Your task to perform on an android device: delete a single message in the gmail app Image 0: 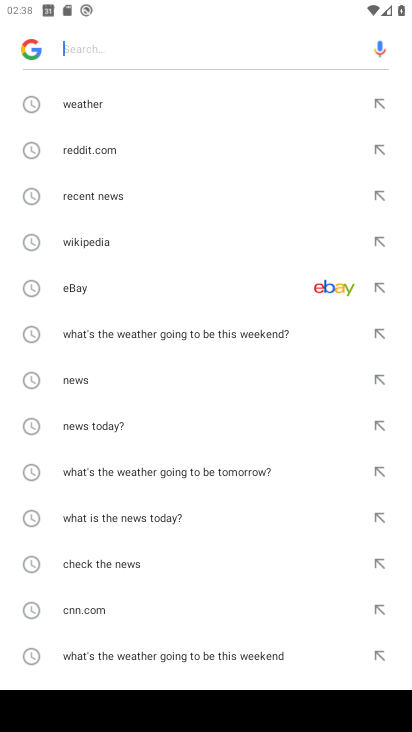
Step 0: press home button
Your task to perform on an android device: delete a single message in the gmail app Image 1: 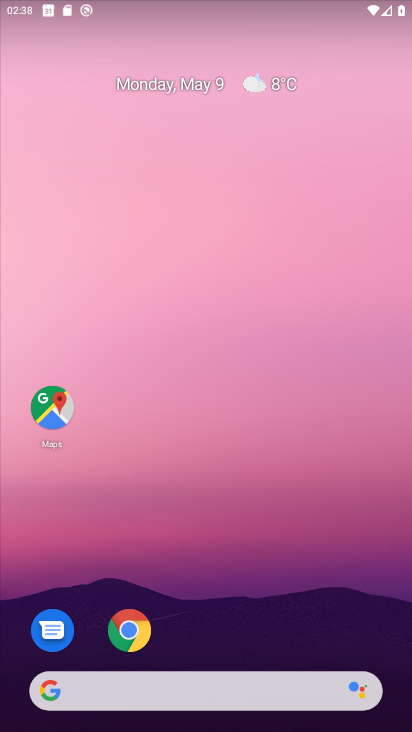
Step 1: drag from (278, 611) to (371, 89)
Your task to perform on an android device: delete a single message in the gmail app Image 2: 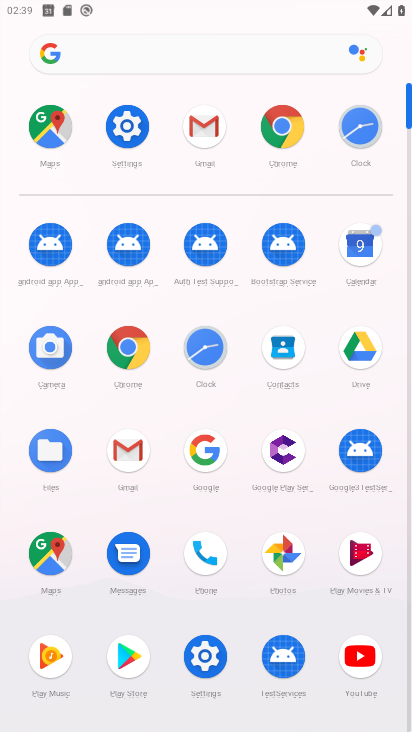
Step 2: click (128, 459)
Your task to perform on an android device: delete a single message in the gmail app Image 3: 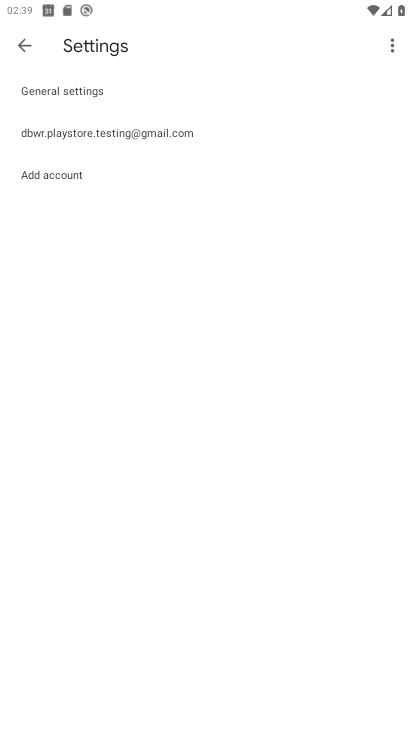
Step 3: click (45, 61)
Your task to perform on an android device: delete a single message in the gmail app Image 4: 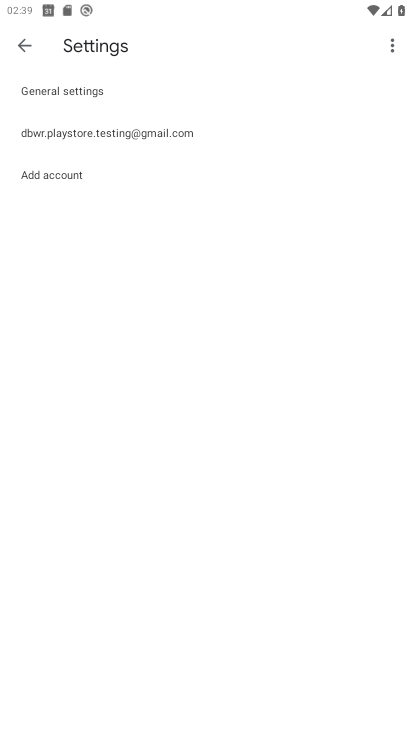
Step 4: click (33, 45)
Your task to perform on an android device: delete a single message in the gmail app Image 5: 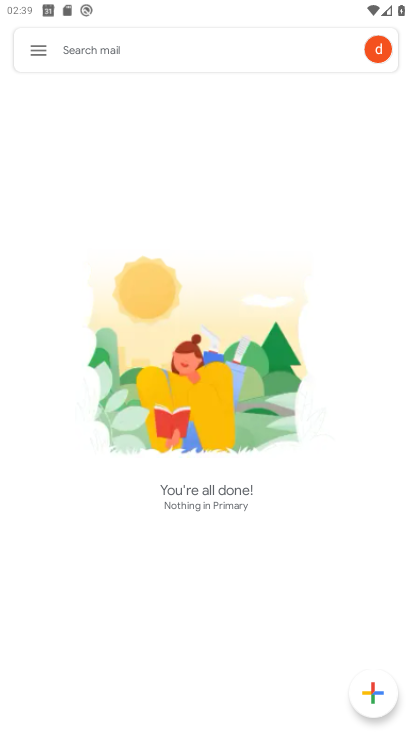
Step 5: click (28, 31)
Your task to perform on an android device: delete a single message in the gmail app Image 6: 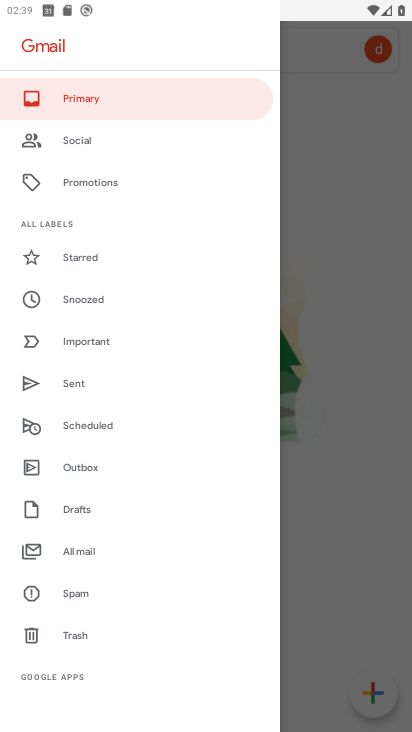
Step 6: click (101, 548)
Your task to perform on an android device: delete a single message in the gmail app Image 7: 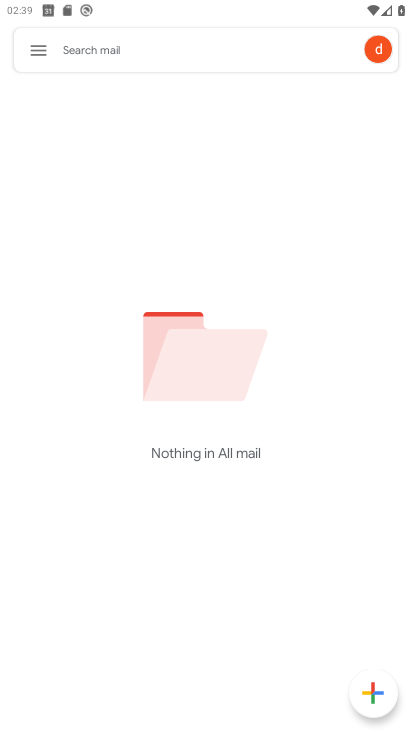
Step 7: task complete